Your task to perform on an android device: set the stopwatch Image 0: 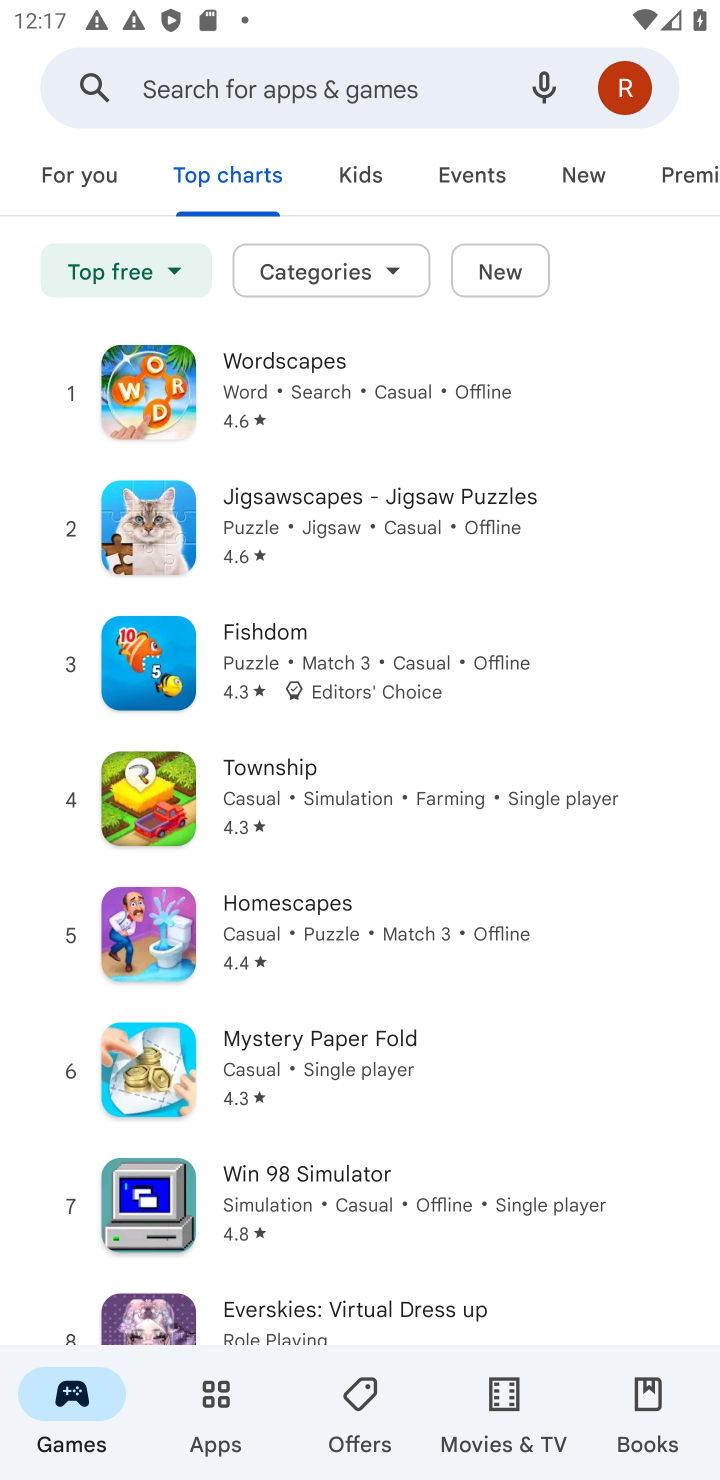
Step 0: press home button
Your task to perform on an android device: set the stopwatch Image 1: 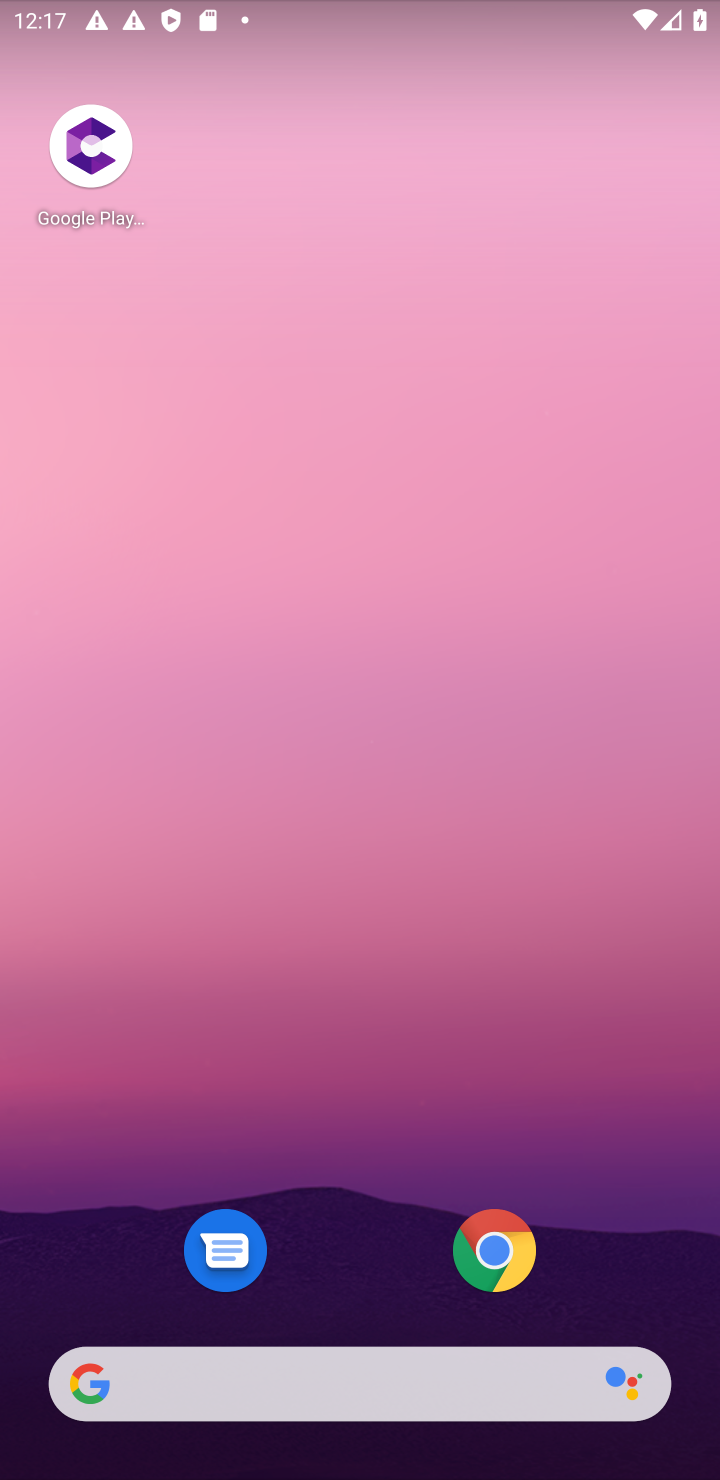
Step 1: drag from (338, 1171) to (670, 30)
Your task to perform on an android device: set the stopwatch Image 2: 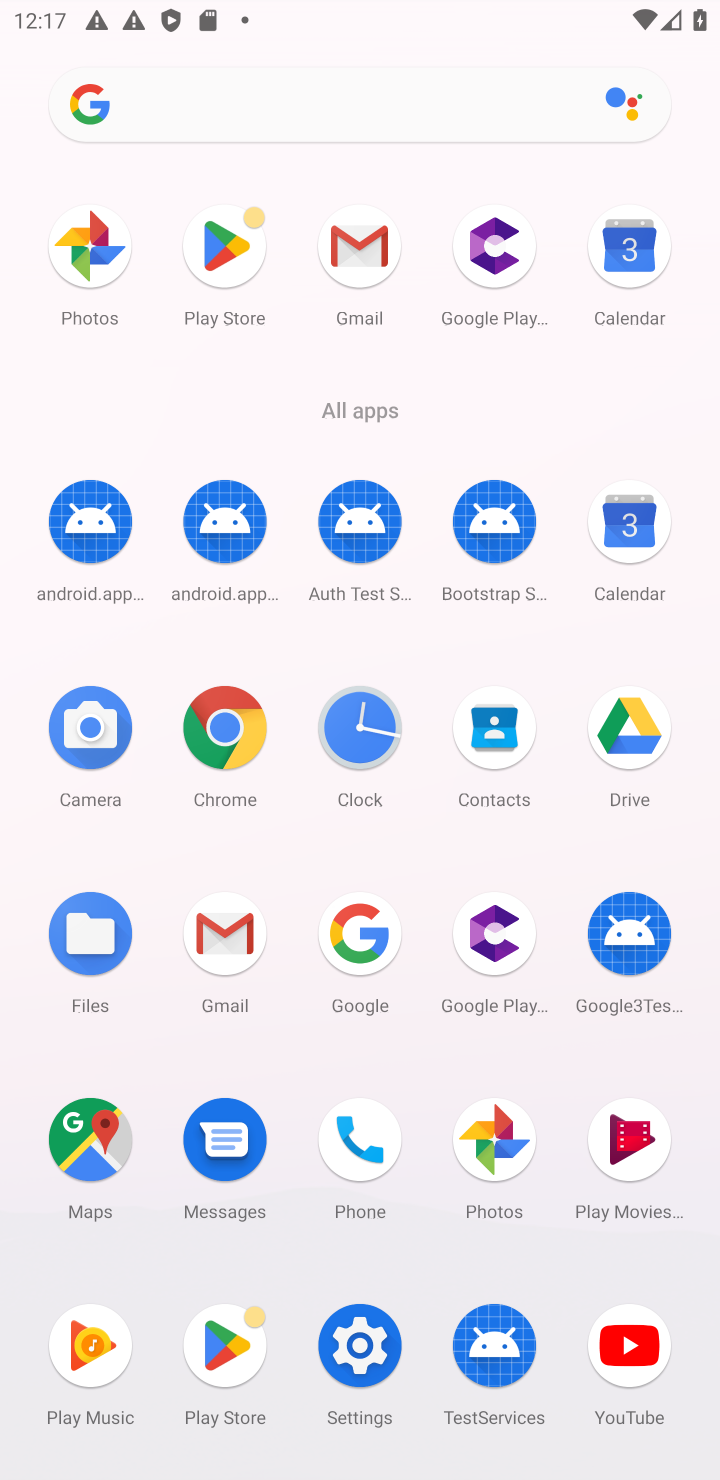
Step 2: click (374, 710)
Your task to perform on an android device: set the stopwatch Image 3: 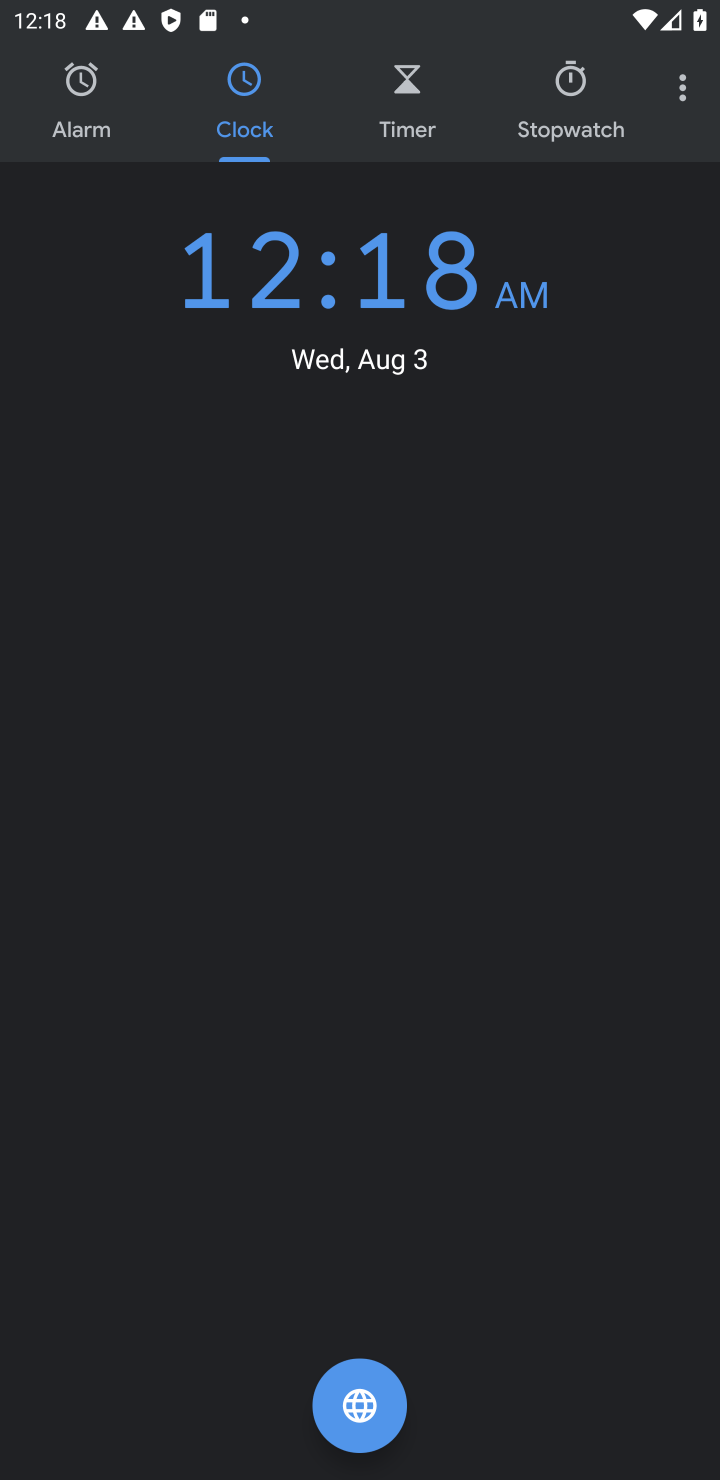
Step 3: click (605, 73)
Your task to perform on an android device: set the stopwatch Image 4: 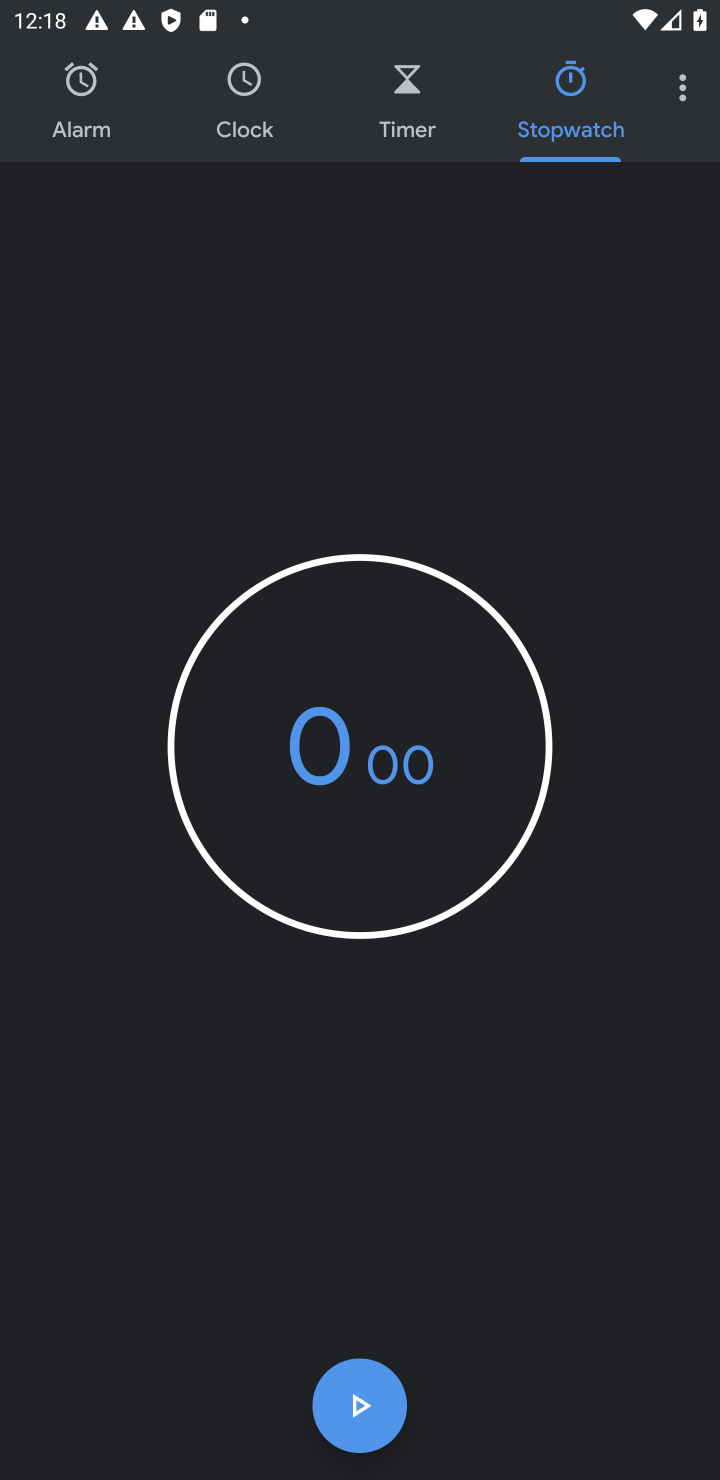
Step 4: click (363, 1378)
Your task to perform on an android device: set the stopwatch Image 5: 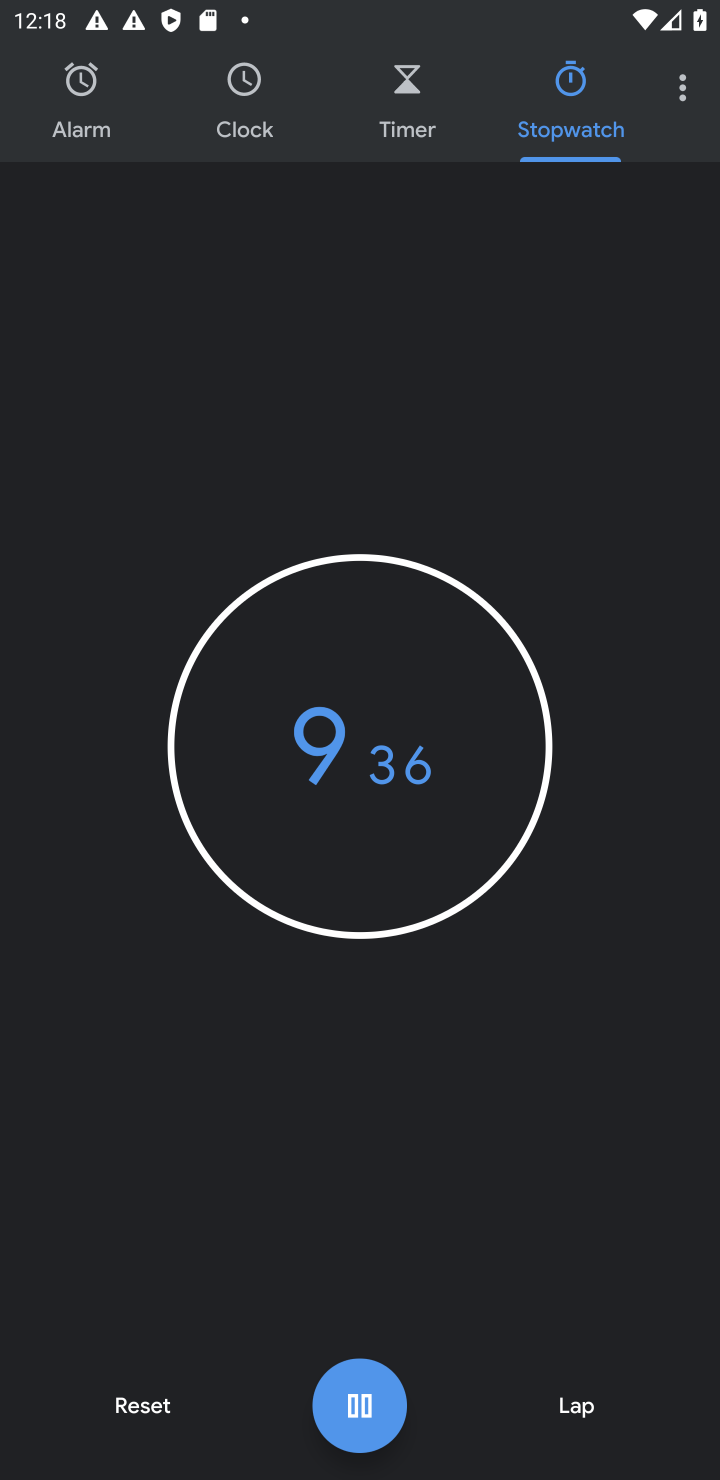
Step 5: task complete